Your task to perform on an android device: turn off location Image 0: 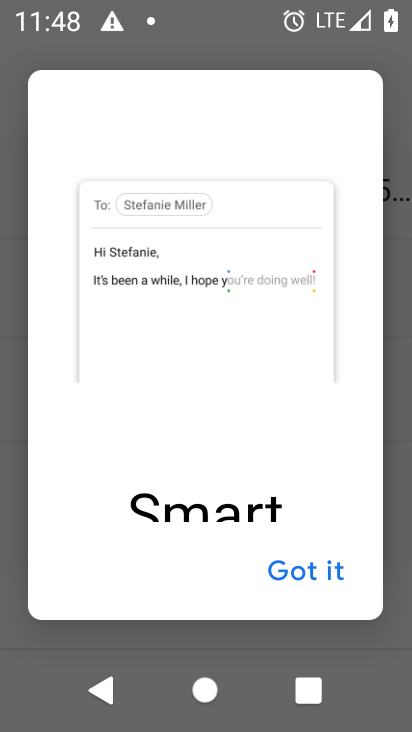
Step 0: press home button
Your task to perform on an android device: turn off location Image 1: 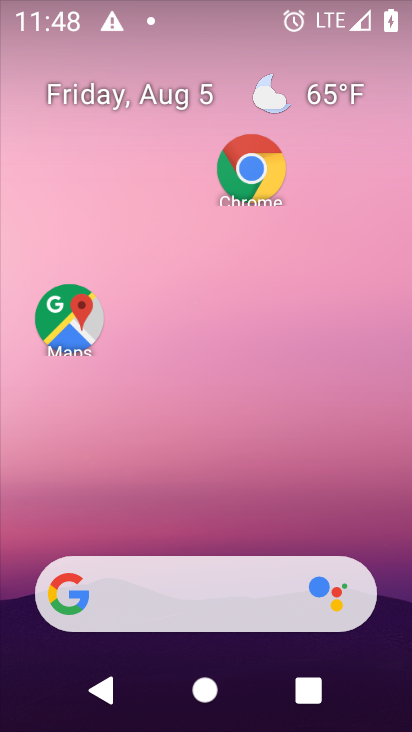
Step 1: drag from (213, 507) to (201, 117)
Your task to perform on an android device: turn off location Image 2: 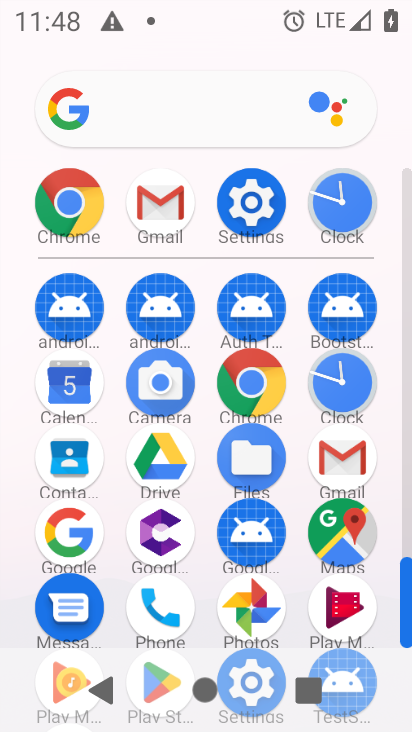
Step 2: click (242, 202)
Your task to perform on an android device: turn off location Image 3: 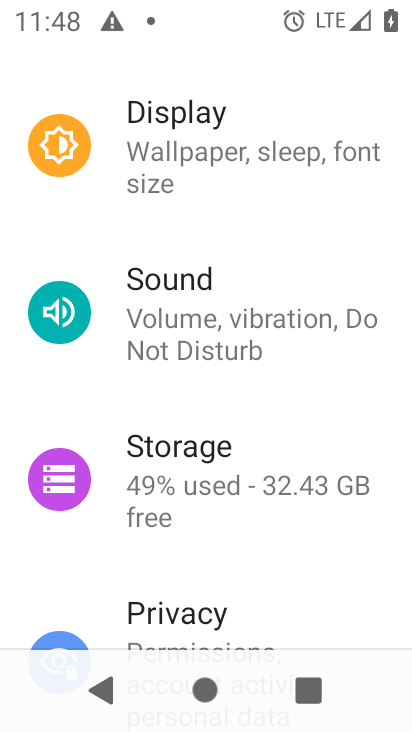
Step 3: drag from (222, 593) to (222, 232)
Your task to perform on an android device: turn off location Image 4: 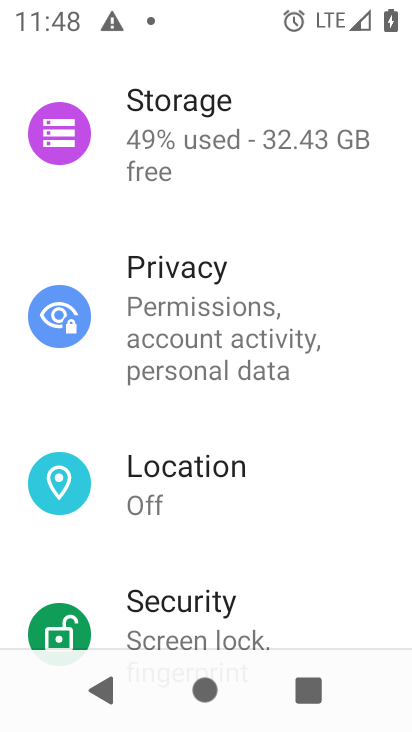
Step 4: click (233, 492)
Your task to perform on an android device: turn off location Image 5: 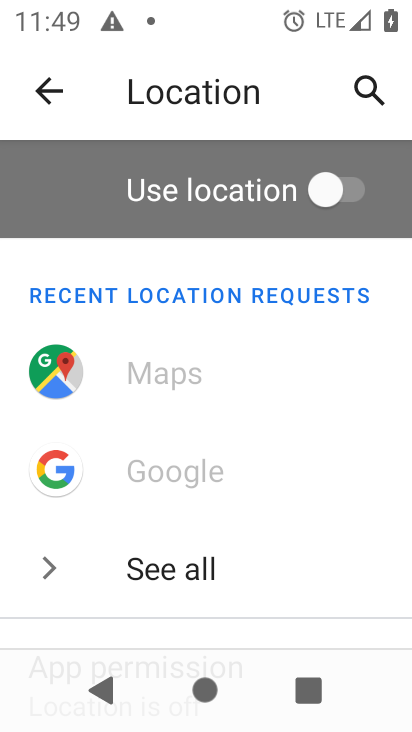
Step 5: task complete